Your task to perform on an android device: move an email to a new category in the gmail app Image 0: 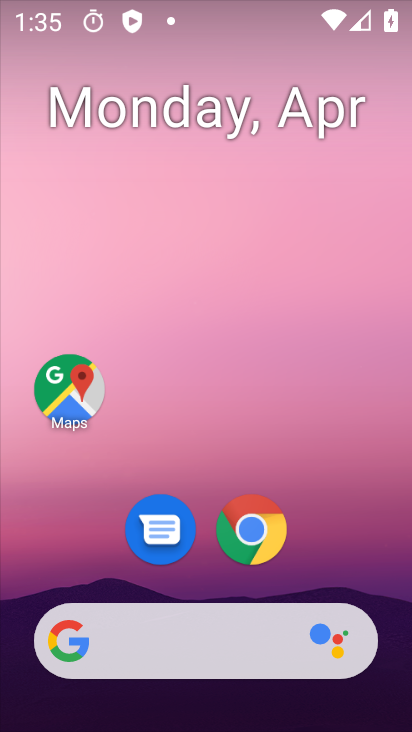
Step 0: drag from (320, 323) to (317, 97)
Your task to perform on an android device: move an email to a new category in the gmail app Image 1: 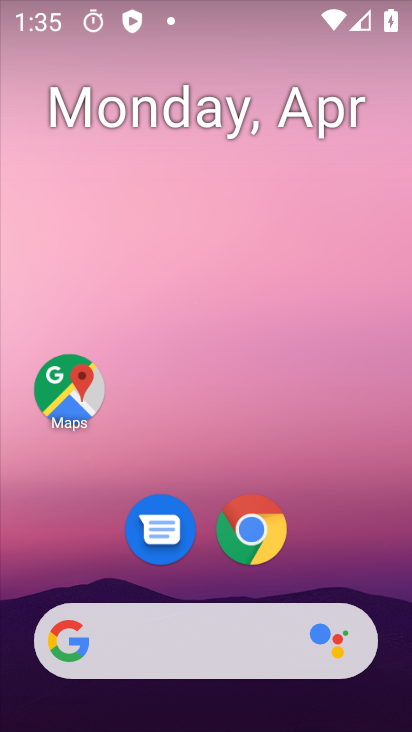
Step 1: drag from (365, 281) to (372, 240)
Your task to perform on an android device: move an email to a new category in the gmail app Image 2: 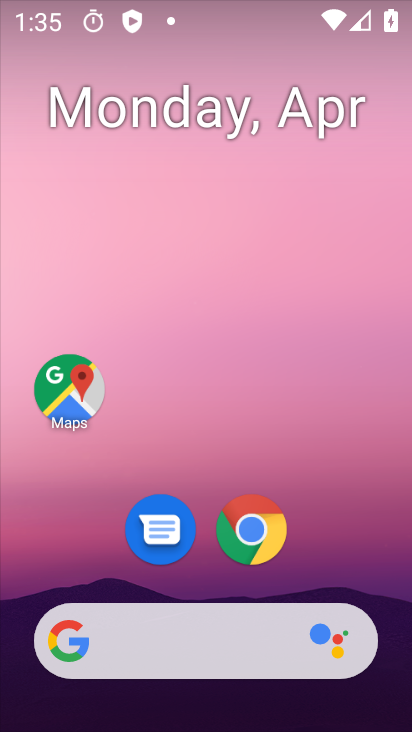
Step 2: drag from (319, 528) to (316, 187)
Your task to perform on an android device: move an email to a new category in the gmail app Image 3: 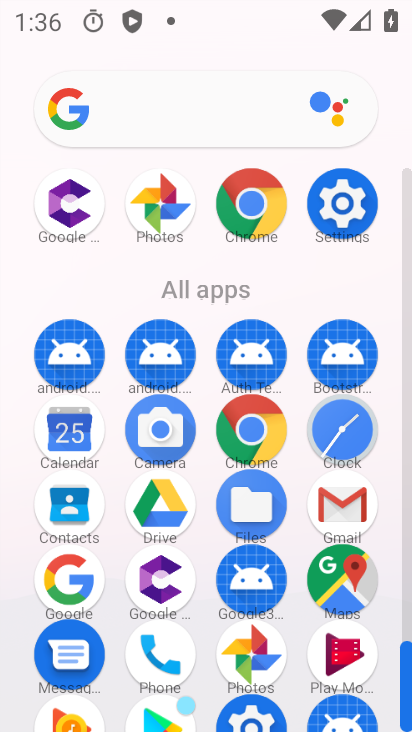
Step 3: click (331, 501)
Your task to perform on an android device: move an email to a new category in the gmail app Image 4: 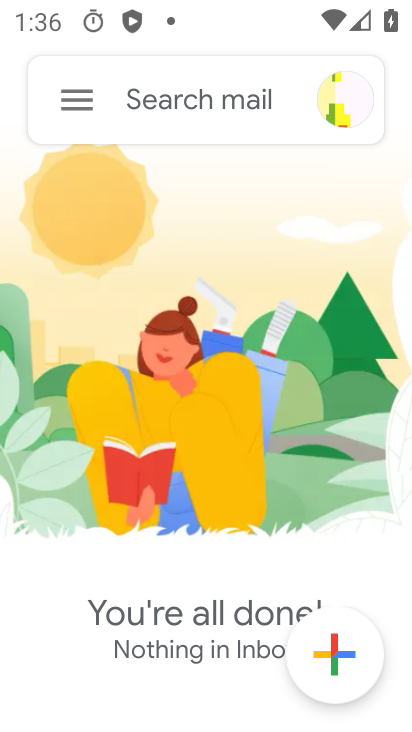
Step 4: click (67, 109)
Your task to perform on an android device: move an email to a new category in the gmail app Image 5: 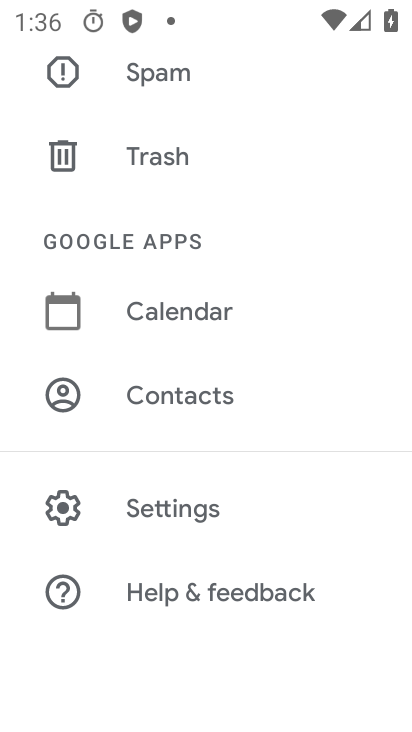
Step 5: drag from (219, 190) to (197, 652)
Your task to perform on an android device: move an email to a new category in the gmail app Image 6: 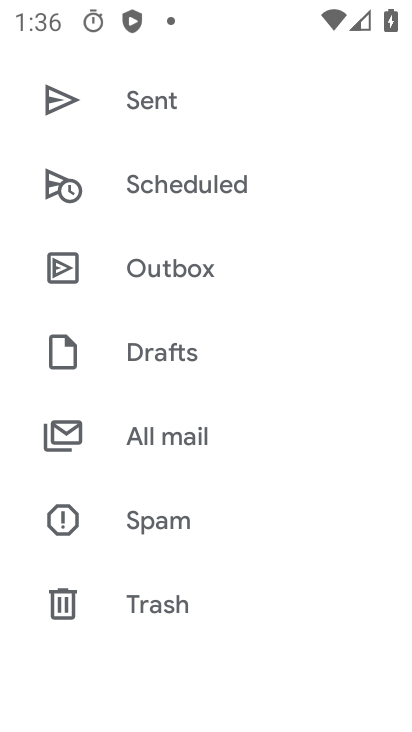
Step 6: click (193, 436)
Your task to perform on an android device: move an email to a new category in the gmail app Image 7: 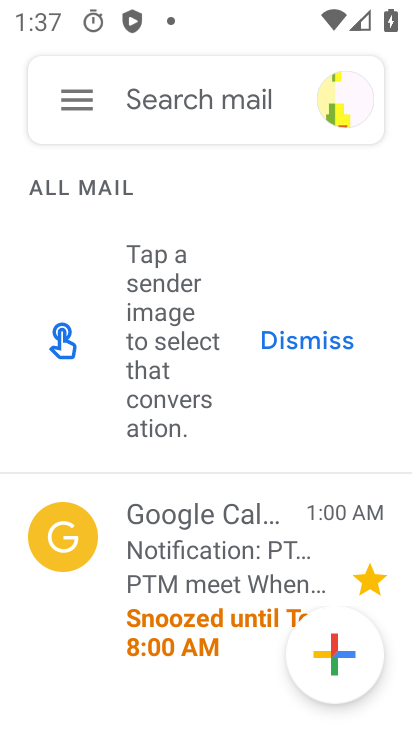
Step 7: click (61, 551)
Your task to perform on an android device: move an email to a new category in the gmail app Image 8: 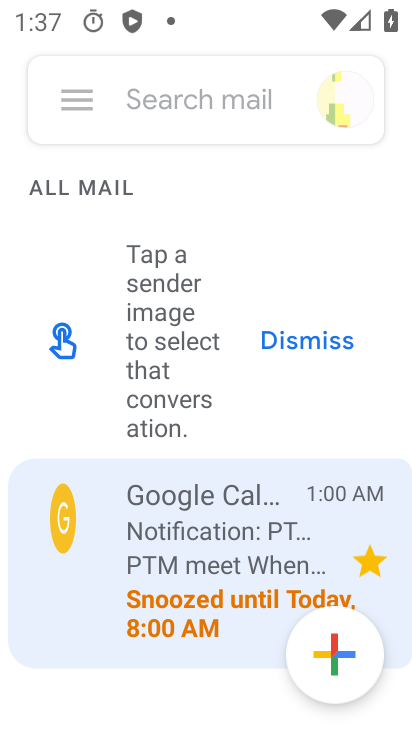
Step 8: click (60, 540)
Your task to perform on an android device: move an email to a new category in the gmail app Image 9: 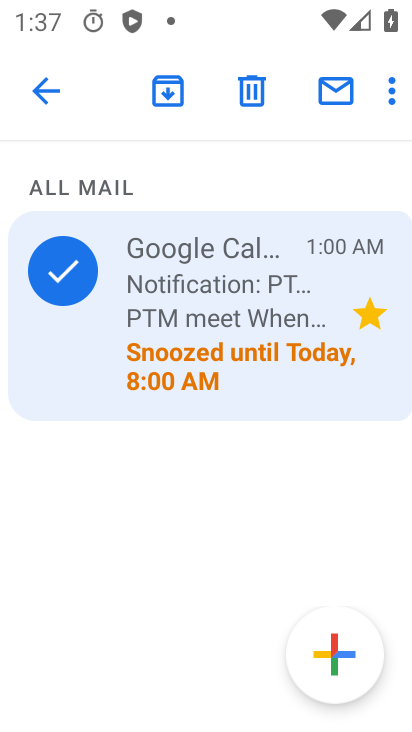
Step 9: click (392, 94)
Your task to perform on an android device: move an email to a new category in the gmail app Image 10: 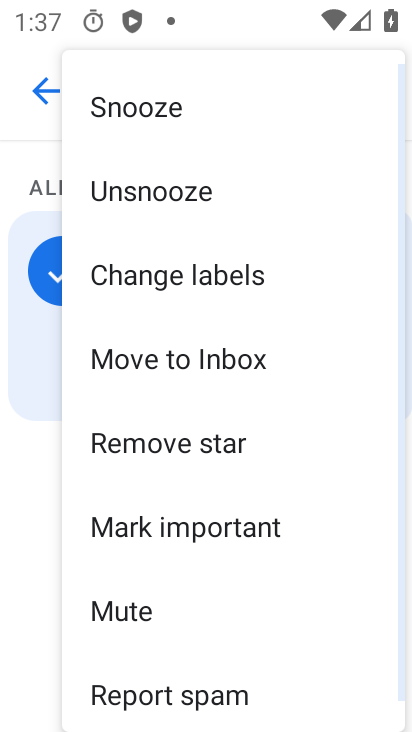
Step 10: click (191, 360)
Your task to perform on an android device: move an email to a new category in the gmail app Image 11: 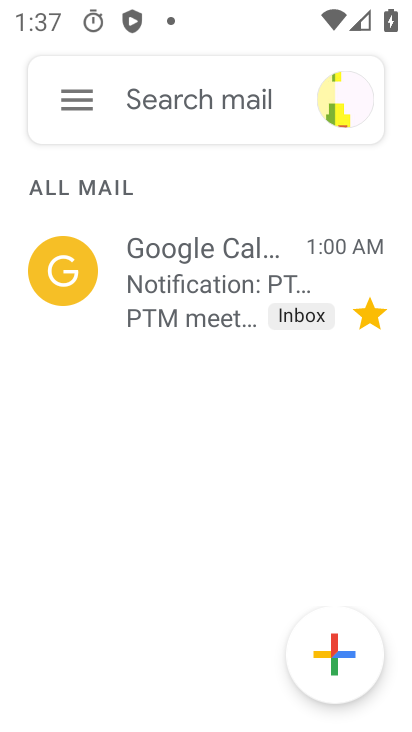
Step 11: task complete